Your task to perform on an android device: Show the shopping cart on bestbuy. Search for usb-a to usb-b on bestbuy, select the first entry, add it to the cart, then select checkout. Image 0: 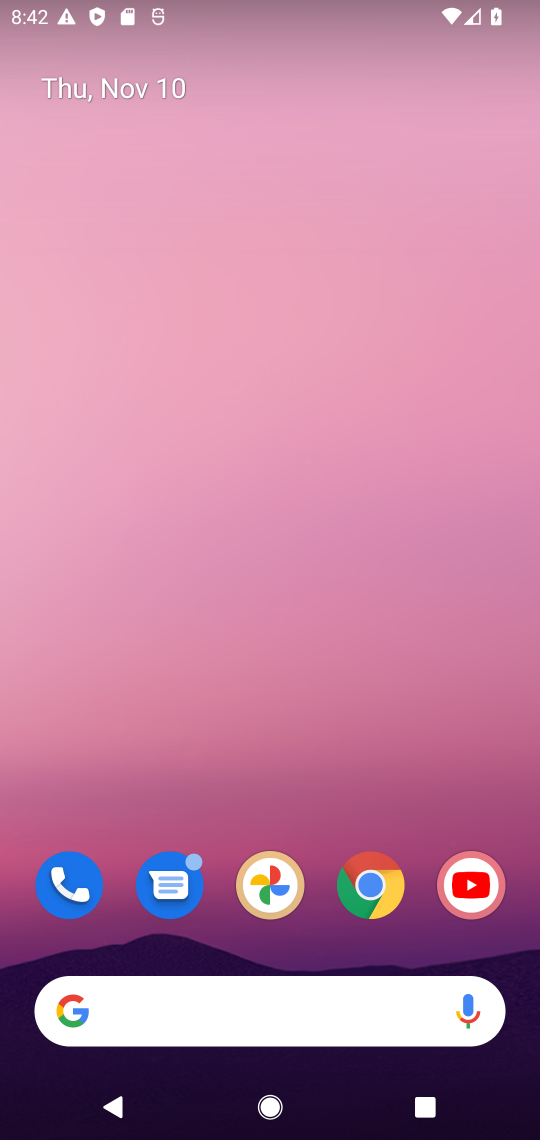
Step 0: click (365, 891)
Your task to perform on an android device: Show the shopping cart on bestbuy. Search for usb-a to usb-b on bestbuy, select the first entry, add it to the cart, then select checkout. Image 1: 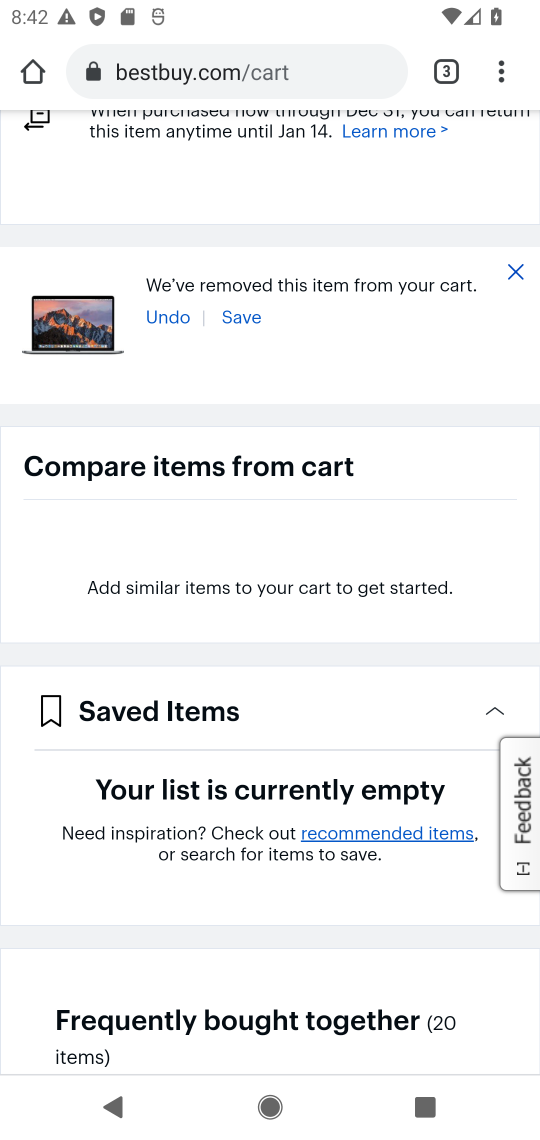
Step 1: drag from (369, 176) to (327, 674)
Your task to perform on an android device: Show the shopping cart on bestbuy. Search for usb-a to usb-b on bestbuy, select the first entry, add it to the cart, then select checkout. Image 2: 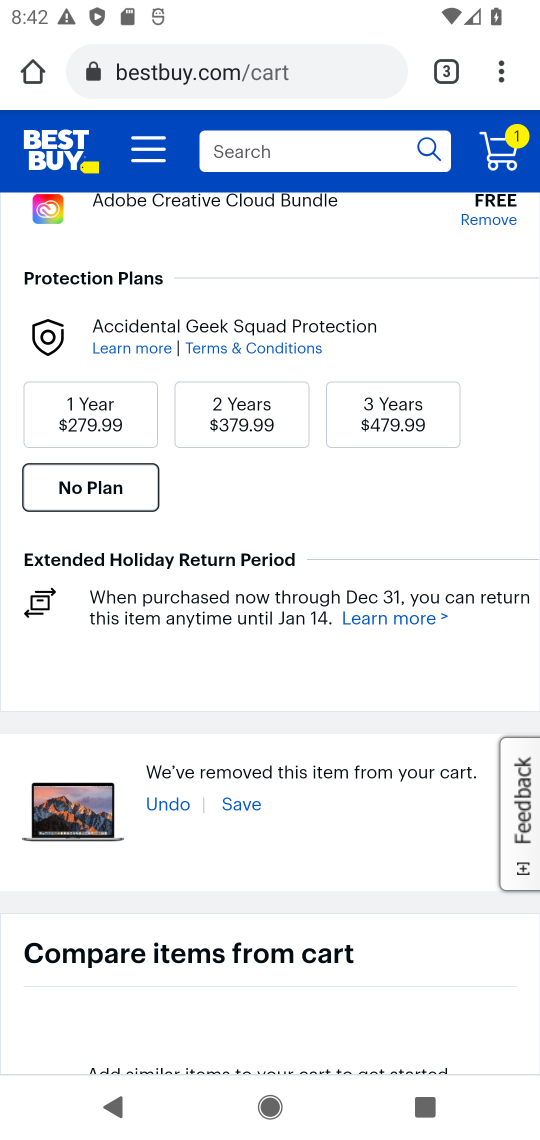
Step 2: click (381, 157)
Your task to perform on an android device: Show the shopping cart on bestbuy. Search for usb-a to usb-b on bestbuy, select the first entry, add it to the cart, then select checkout. Image 3: 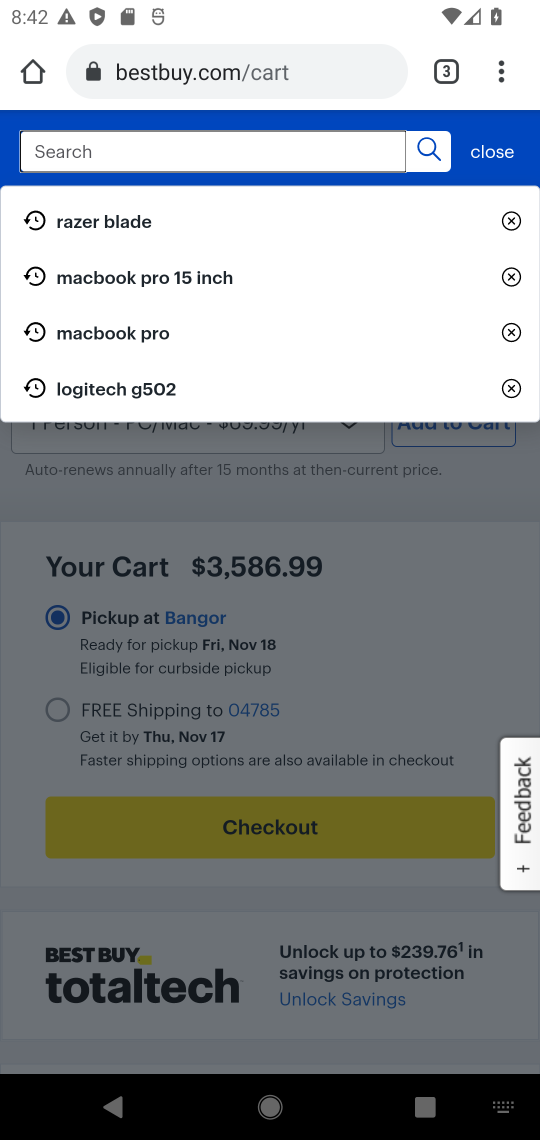
Step 3: type "usb-a to usb-b"
Your task to perform on an android device: Show the shopping cart on bestbuy. Search for usb-a to usb-b on bestbuy, select the first entry, add it to the cart, then select checkout. Image 4: 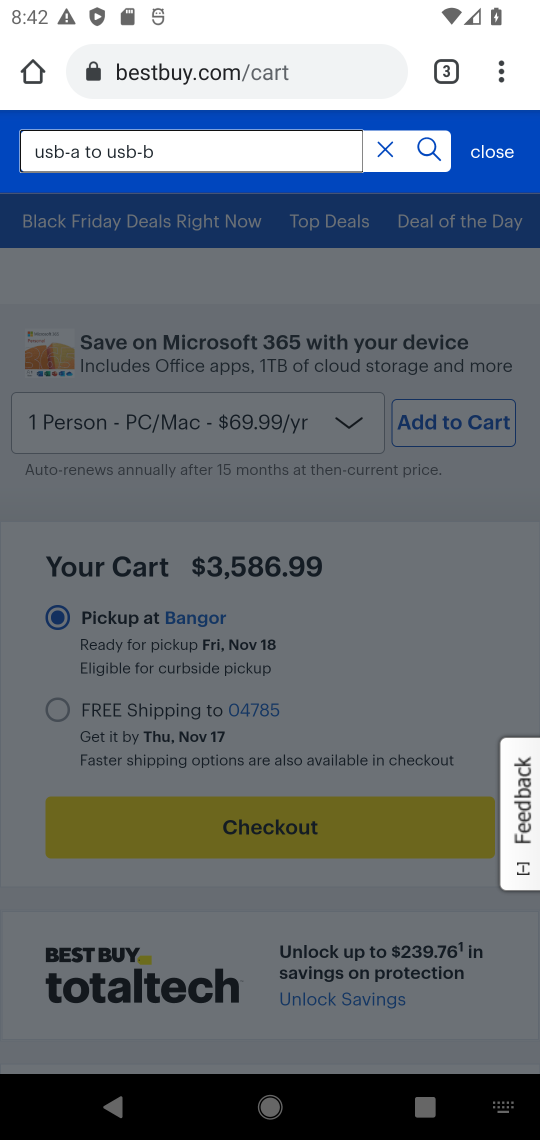
Step 4: click (432, 151)
Your task to perform on an android device: Show the shopping cart on bestbuy. Search for usb-a to usb-b on bestbuy, select the first entry, add it to the cart, then select checkout. Image 5: 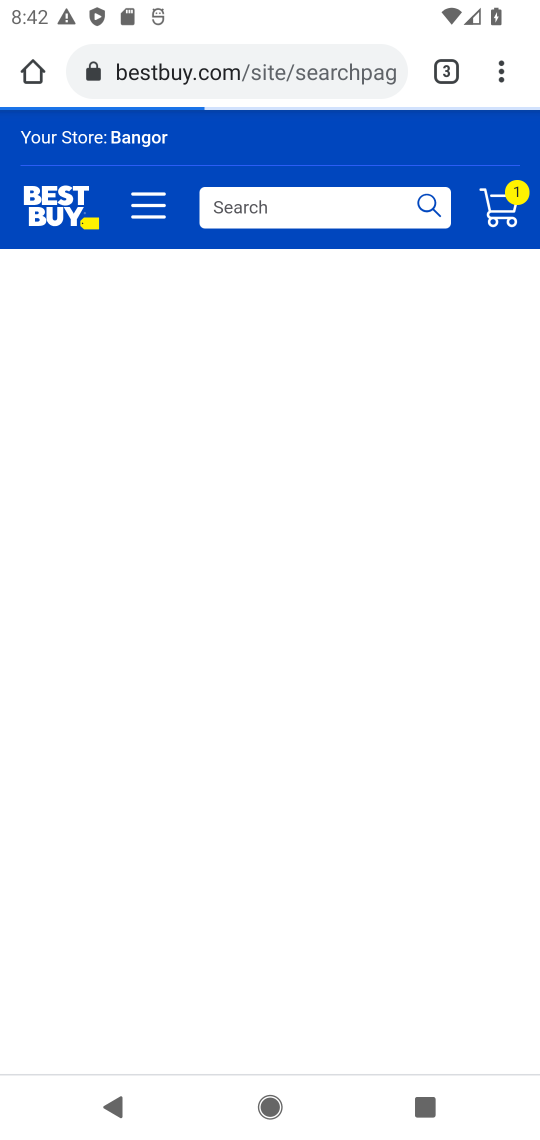
Step 5: click (432, 151)
Your task to perform on an android device: Show the shopping cart on bestbuy. Search for usb-a to usb-b on bestbuy, select the first entry, add it to the cart, then select checkout. Image 6: 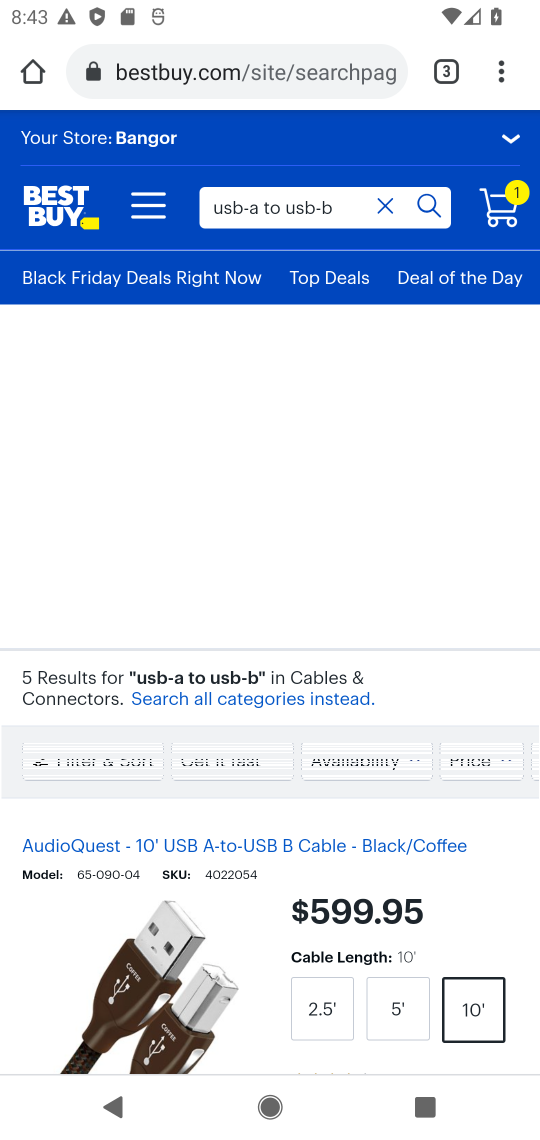
Step 6: drag from (454, 881) to (528, 500)
Your task to perform on an android device: Show the shopping cart on bestbuy. Search for usb-a to usb-b on bestbuy, select the first entry, add it to the cart, then select checkout. Image 7: 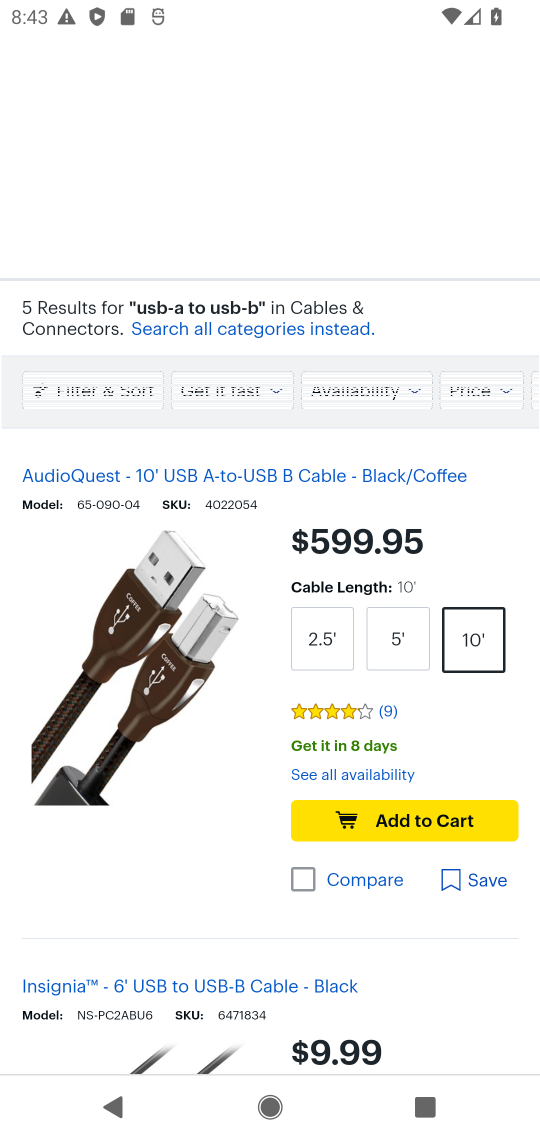
Step 7: click (446, 812)
Your task to perform on an android device: Show the shopping cart on bestbuy. Search for usb-a to usb-b on bestbuy, select the first entry, add it to the cart, then select checkout. Image 8: 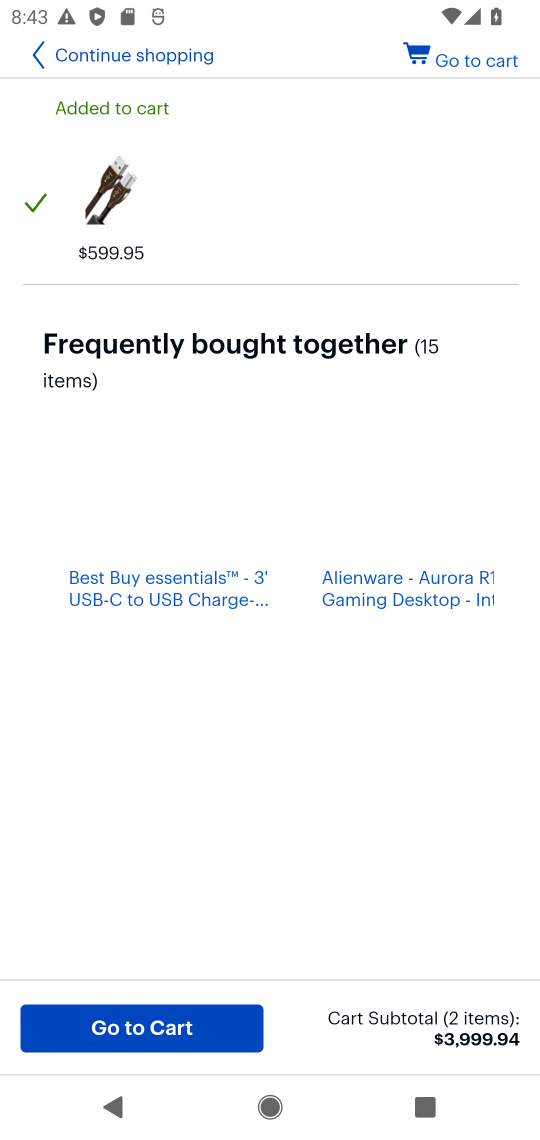
Step 8: task complete